Your task to perform on an android device: What's on my calendar tomorrow? Image 0: 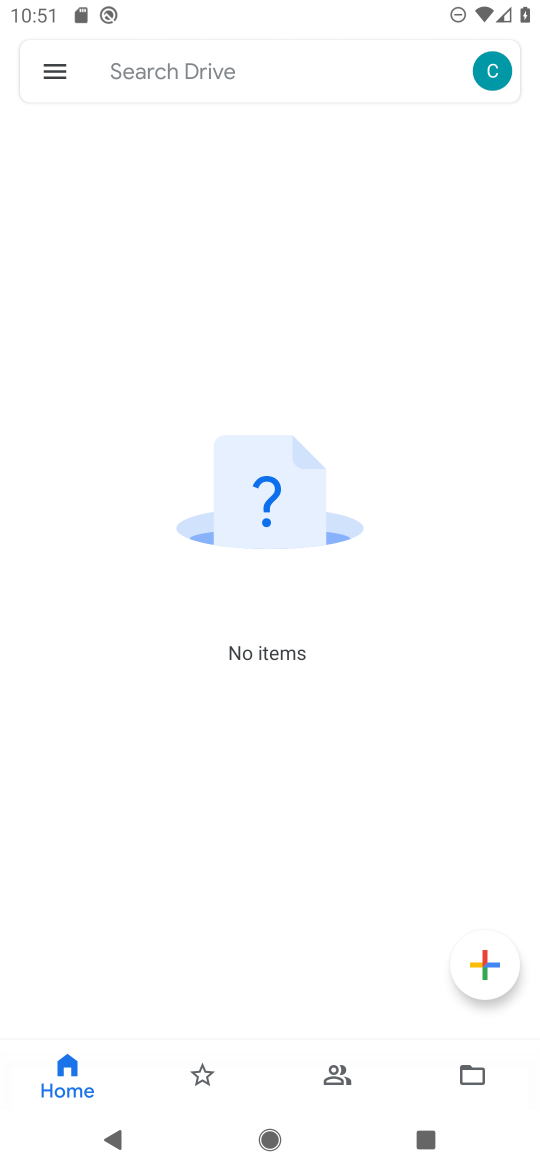
Step 0: press home button
Your task to perform on an android device: What's on my calendar tomorrow? Image 1: 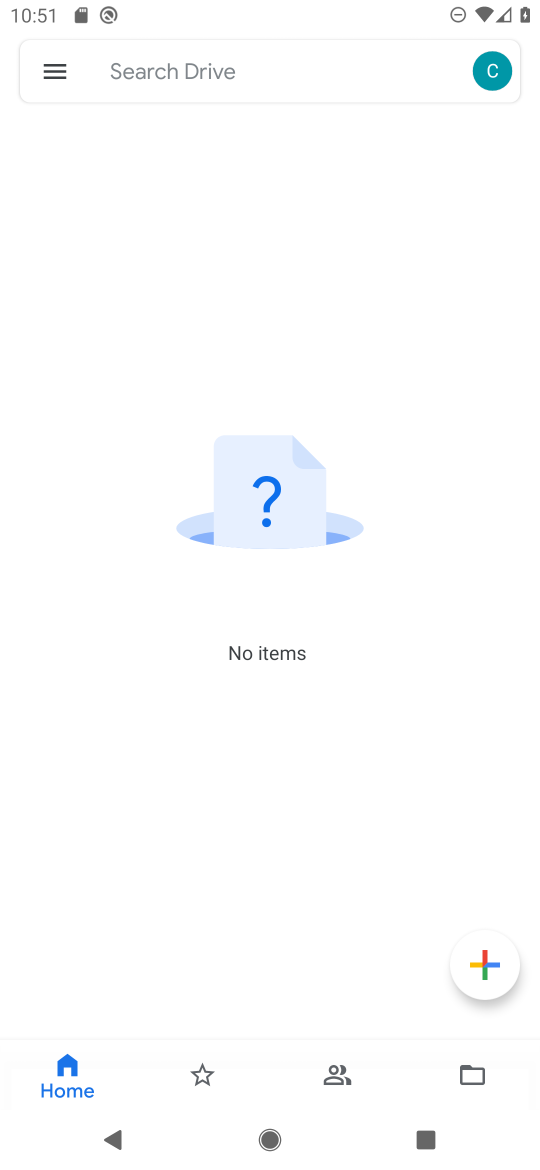
Step 1: press home button
Your task to perform on an android device: What's on my calendar tomorrow? Image 2: 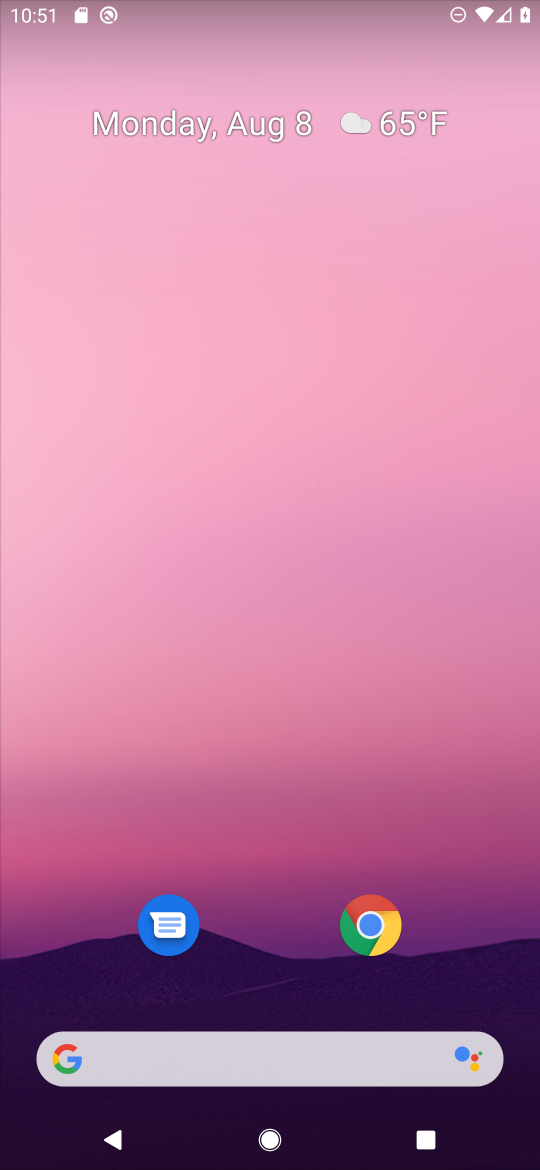
Step 2: drag from (265, 938) to (273, 102)
Your task to perform on an android device: What's on my calendar tomorrow? Image 3: 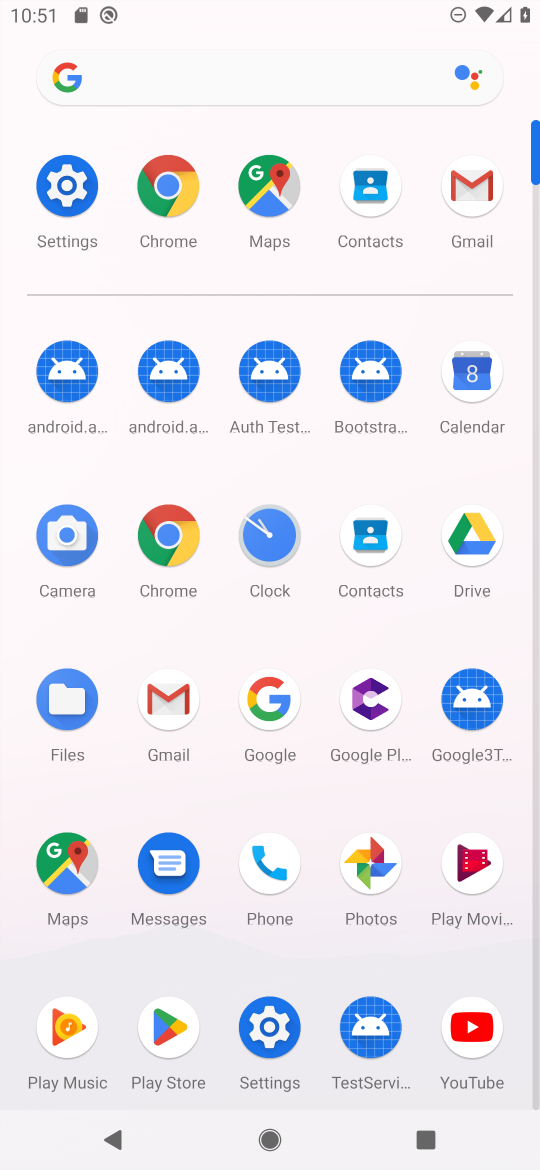
Step 3: click (479, 371)
Your task to perform on an android device: What's on my calendar tomorrow? Image 4: 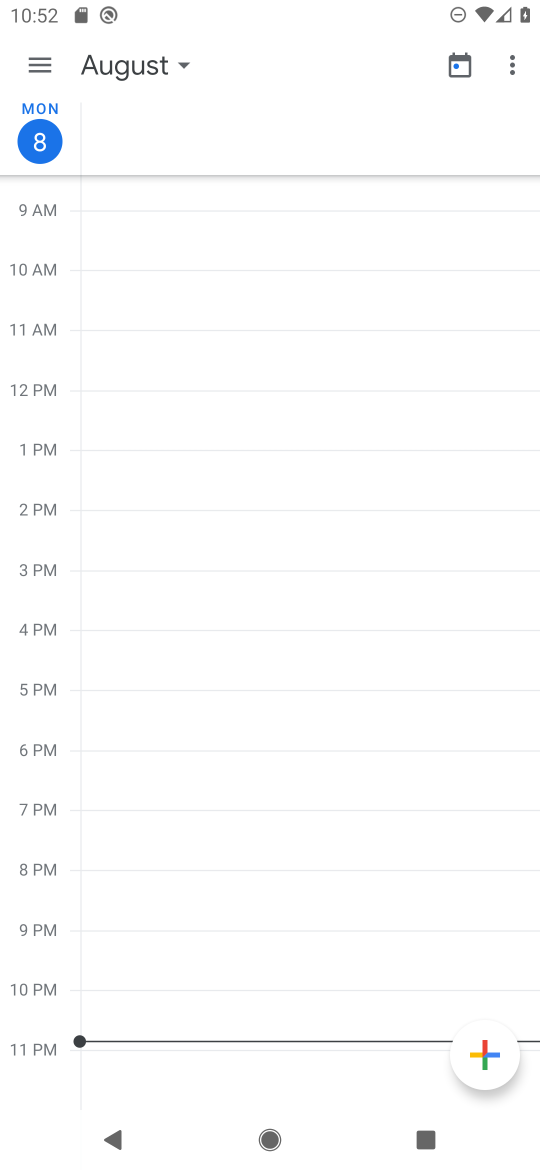
Step 4: click (155, 59)
Your task to perform on an android device: What's on my calendar tomorrow? Image 5: 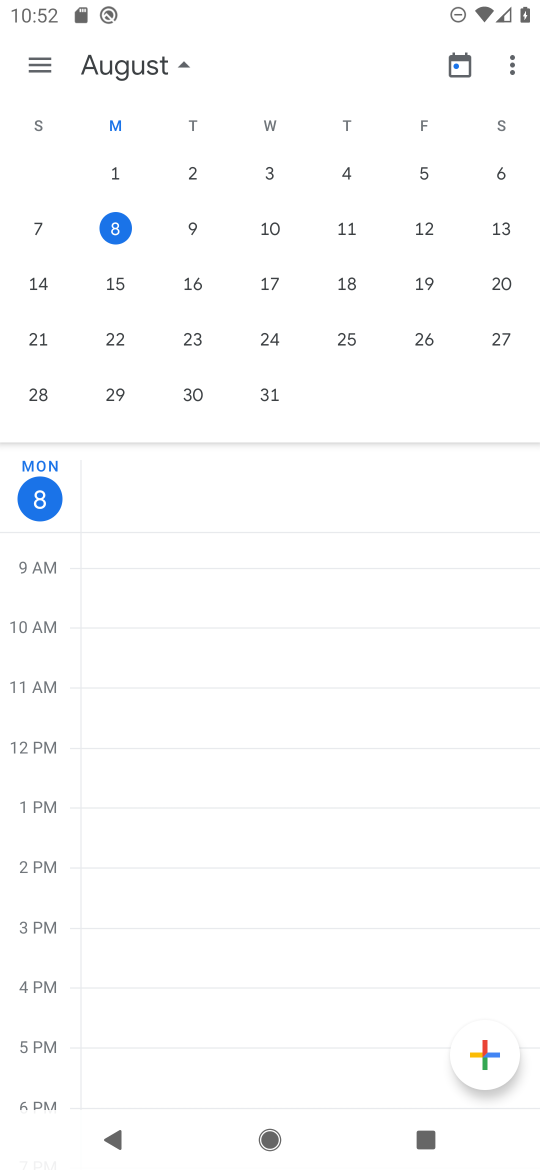
Step 5: click (185, 221)
Your task to perform on an android device: What's on my calendar tomorrow? Image 6: 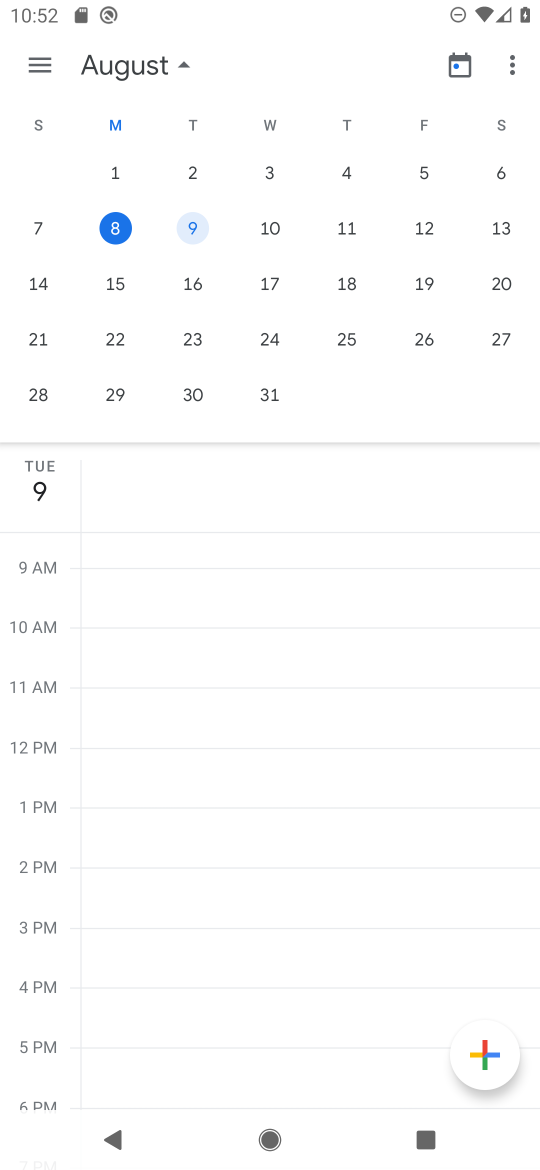
Step 6: task complete